Your task to perform on an android device: toggle notification dots Image 0: 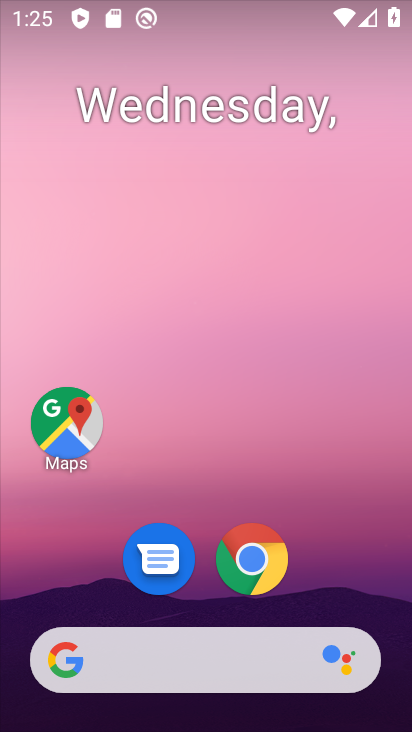
Step 0: drag from (201, 586) to (182, 17)
Your task to perform on an android device: toggle notification dots Image 1: 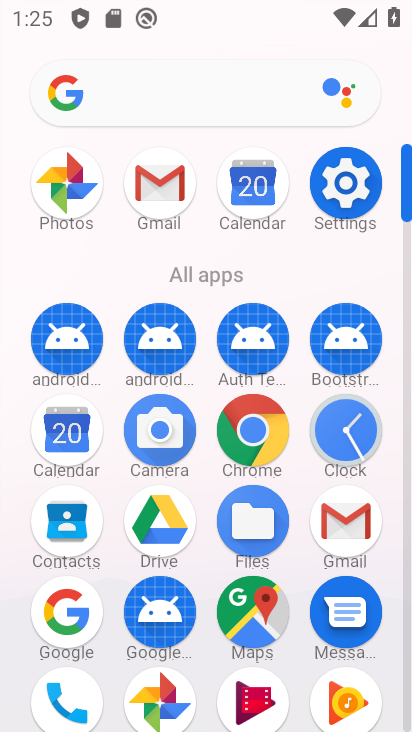
Step 1: click (321, 190)
Your task to perform on an android device: toggle notification dots Image 2: 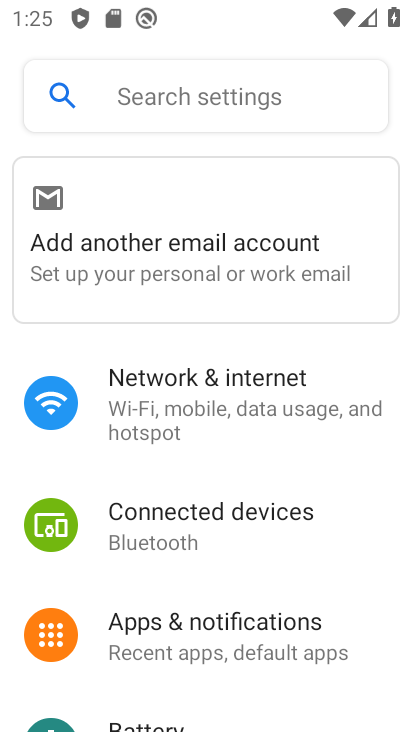
Step 2: drag from (163, 534) to (205, 74)
Your task to perform on an android device: toggle notification dots Image 3: 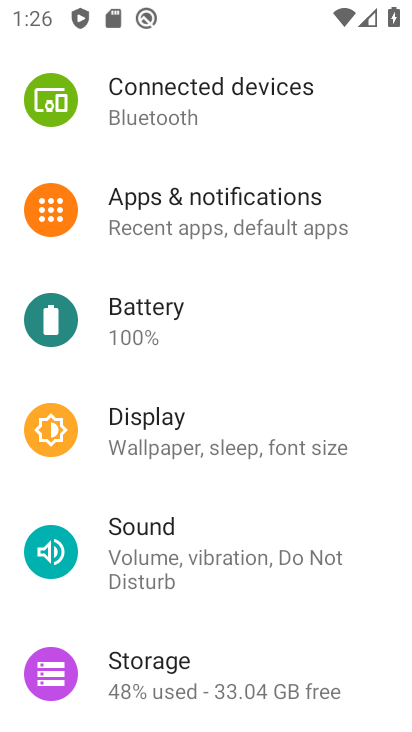
Step 3: click (197, 215)
Your task to perform on an android device: toggle notification dots Image 4: 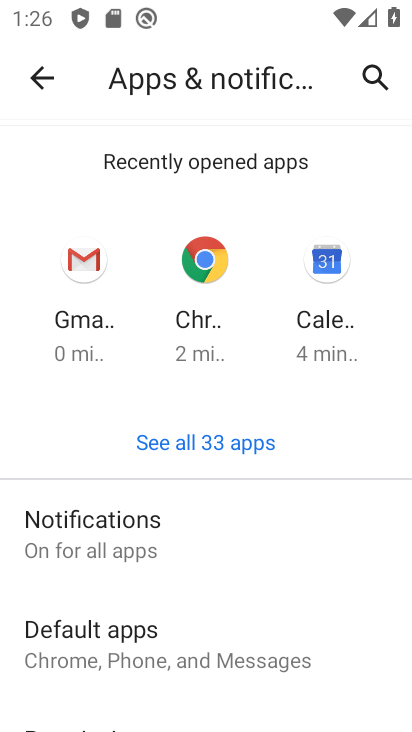
Step 4: click (147, 545)
Your task to perform on an android device: toggle notification dots Image 5: 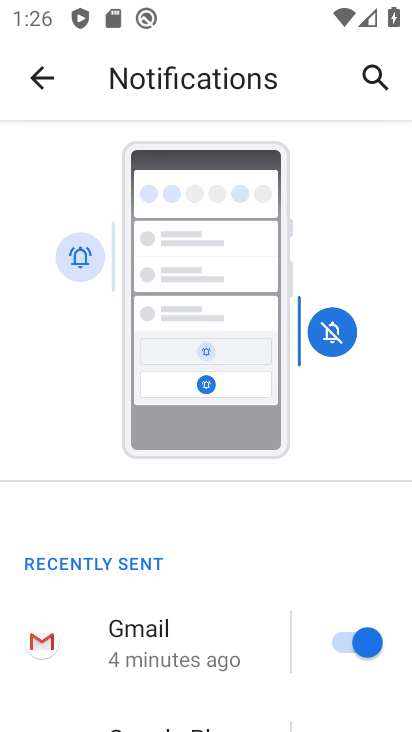
Step 5: drag from (172, 564) to (218, 236)
Your task to perform on an android device: toggle notification dots Image 6: 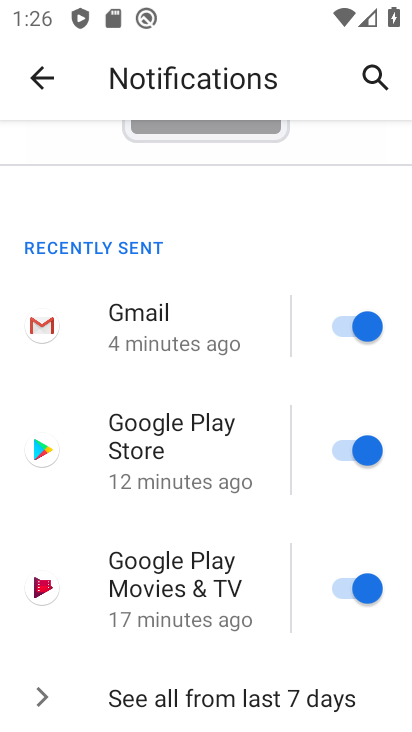
Step 6: drag from (199, 565) to (225, 229)
Your task to perform on an android device: toggle notification dots Image 7: 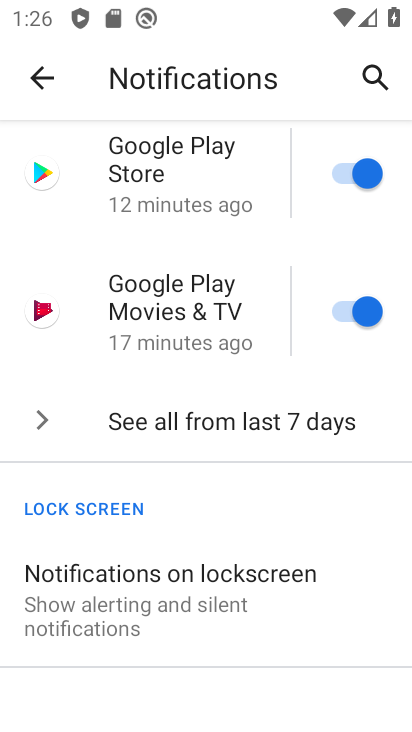
Step 7: drag from (173, 542) to (192, 298)
Your task to perform on an android device: toggle notification dots Image 8: 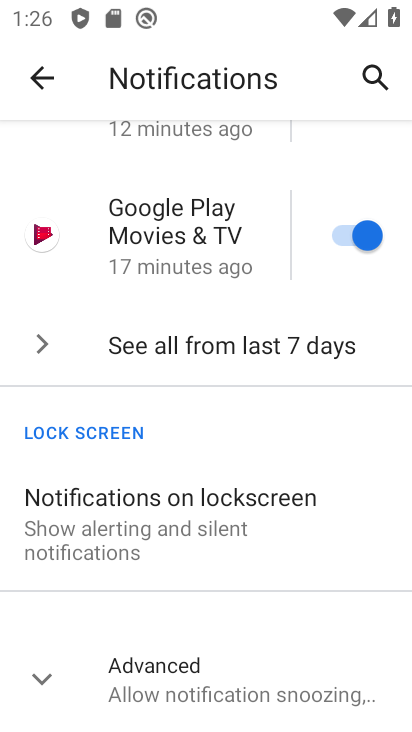
Step 8: click (188, 672)
Your task to perform on an android device: toggle notification dots Image 9: 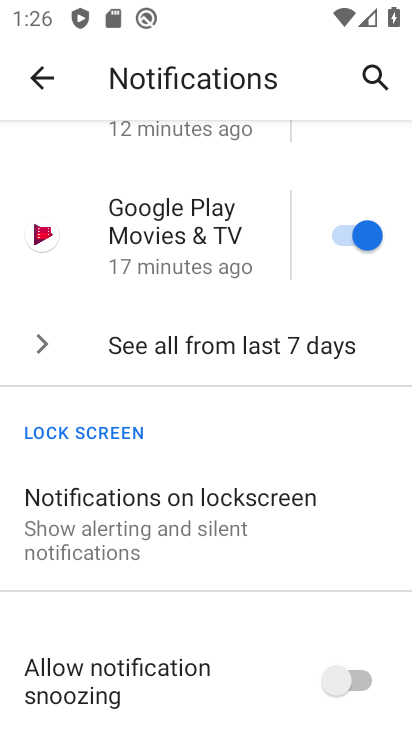
Step 9: drag from (216, 665) to (273, 180)
Your task to perform on an android device: toggle notification dots Image 10: 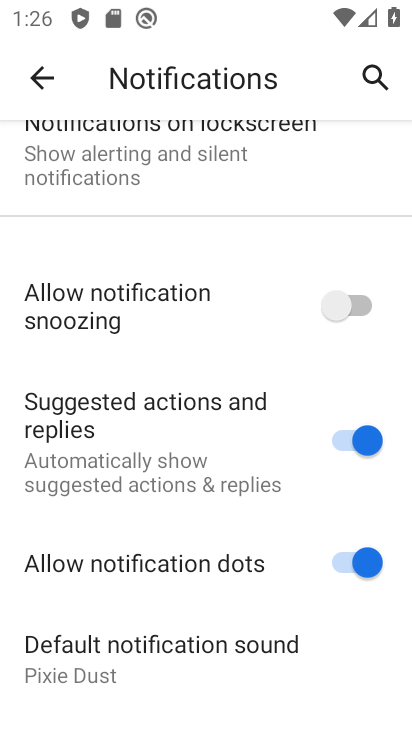
Step 10: click (357, 562)
Your task to perform on an android device: toggle notification dots Image 11: 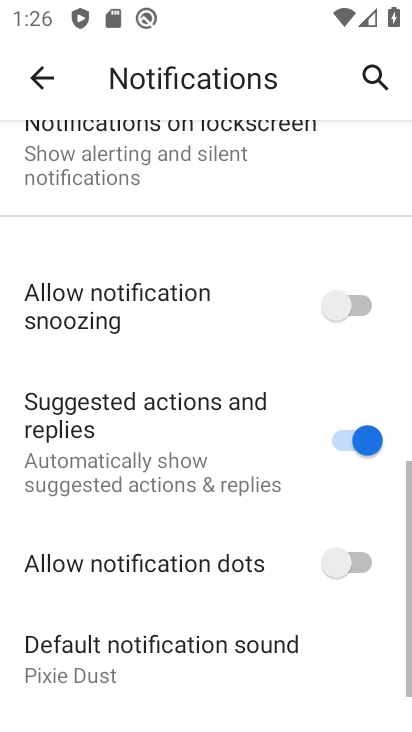
Step 11: click (357, 562)
Your task to perform on an android device: toggle notification dots Image 12: 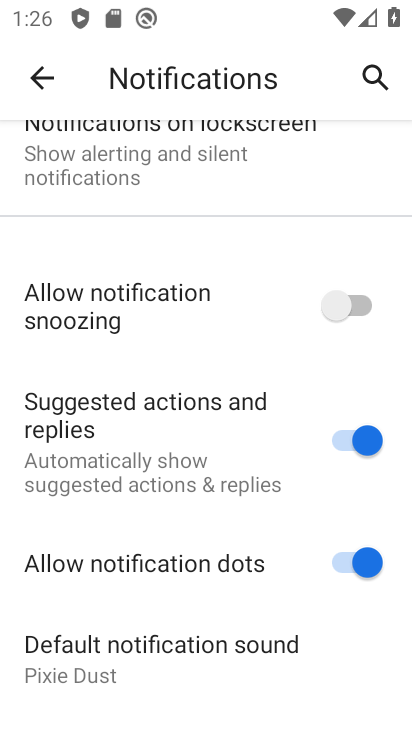
Step 12: task complete